Your task to perform on an android device: turn on javascript in the chrome app Image 0: 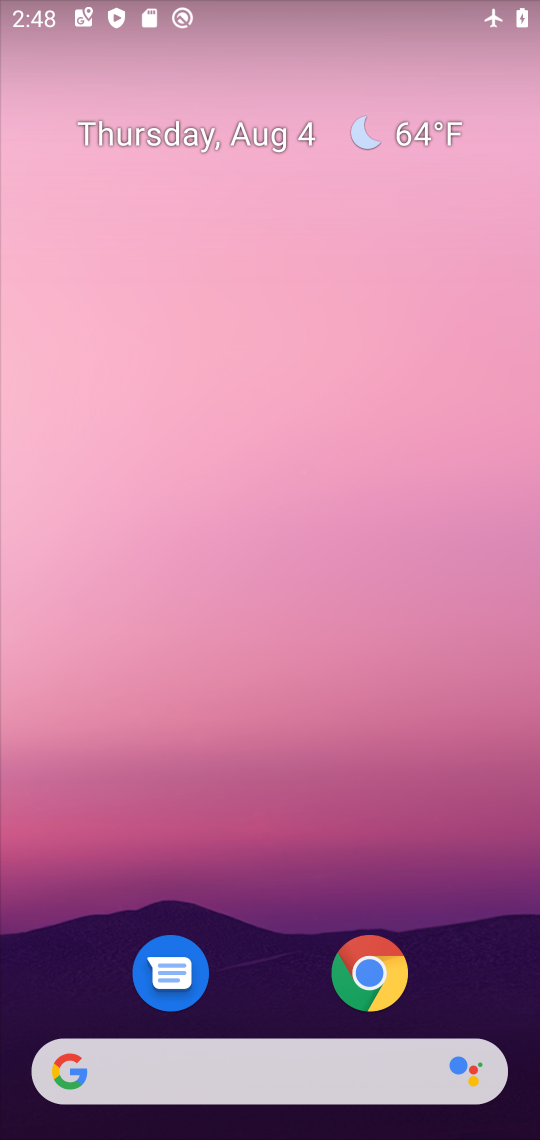
Step 0: click (371, 945)
Your task to perform on an android device: turn on javascript in the chrome app Image 1: 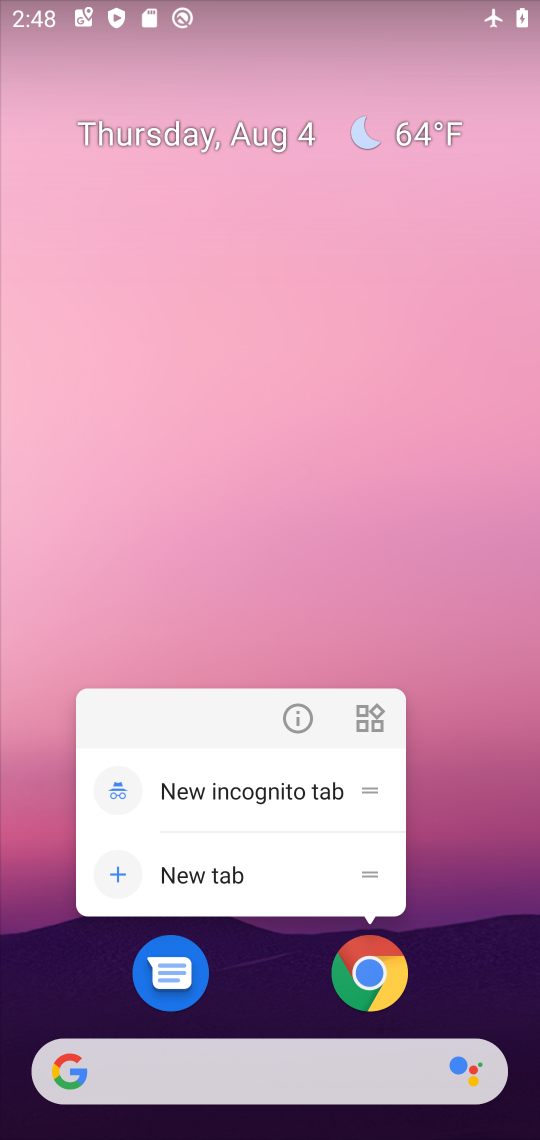
Step 1: click (368, 985)
Your task to perform on an android device: turn on javascript in the chrome app Image 2: 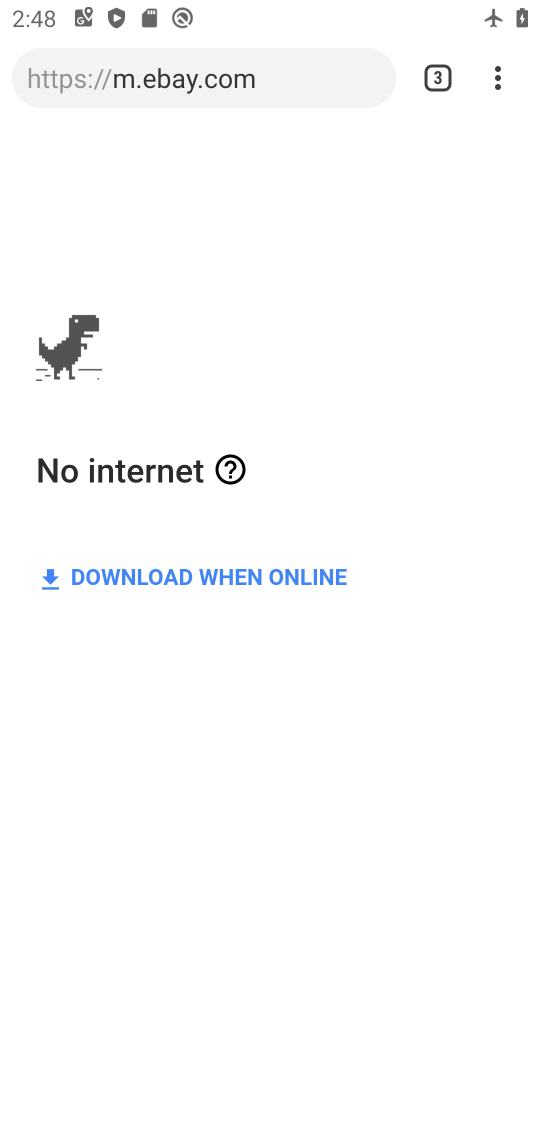
Step 2: click (532, 83)
Your task to perform on an android device: turn on javascript in the chrome app Image 3: 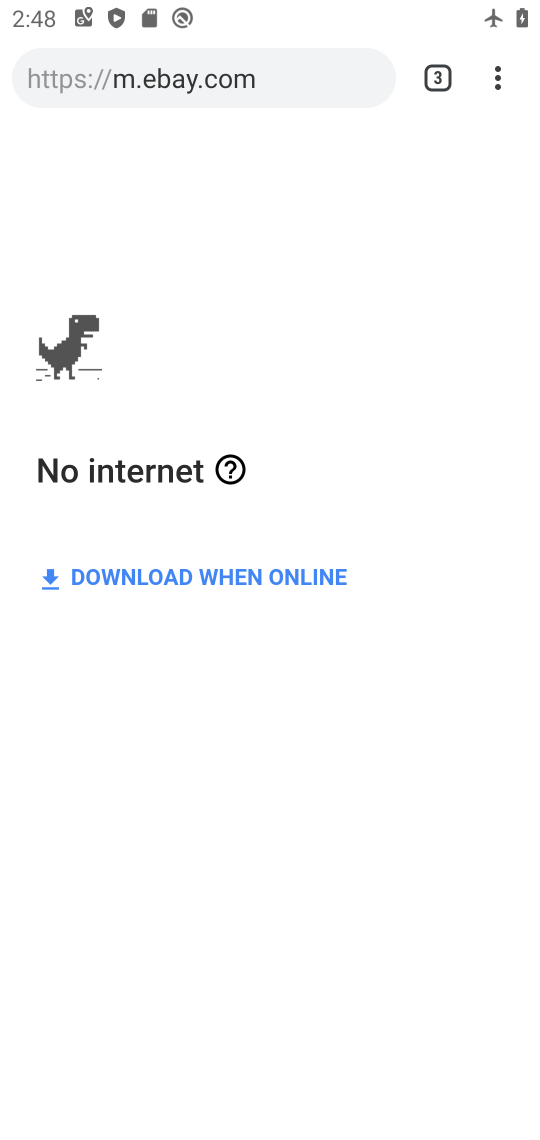
Step 3: click (507, 82)
Your task to perform on an android device: turn on javascript in the chrome app Image 4: 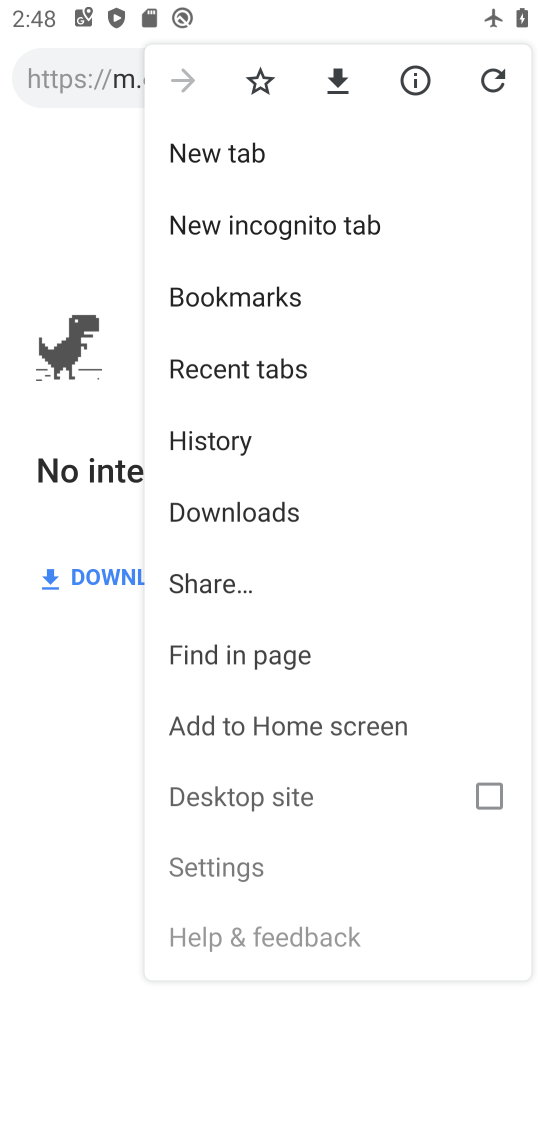
Step 4: click (505, 82)
Your task to perform on an android device: turn on javascript in the chrome app Image 5: 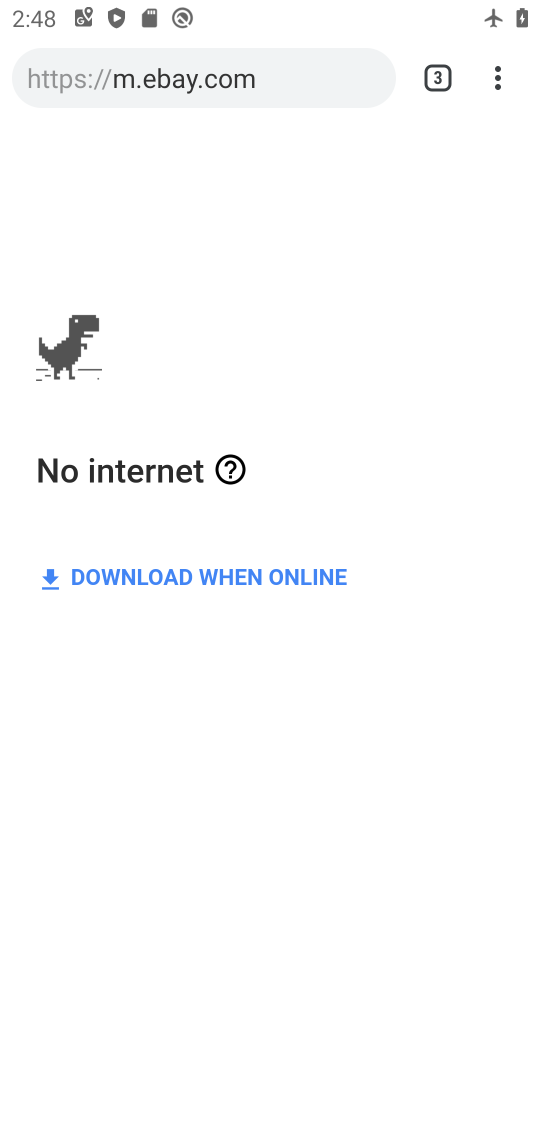
Step 5: drag from (503, 82) to (317, 874)
Your task to perform on an android device: turn on javascript in the chrome app Image 6: 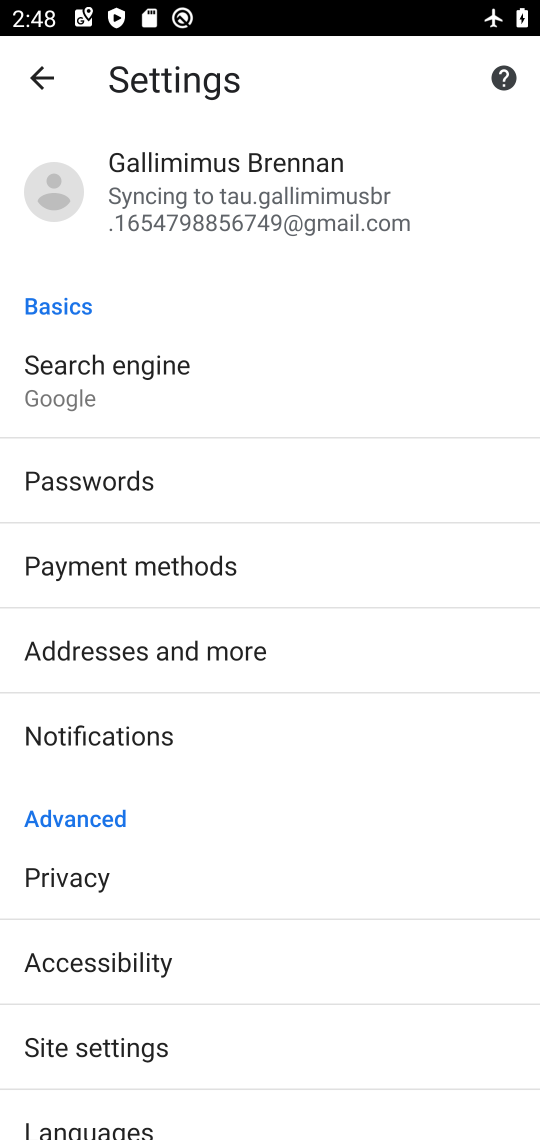
Step 6: click (89, 1033)
Your task to perform on an android device: turn on javascript in the chrome app Image 7: 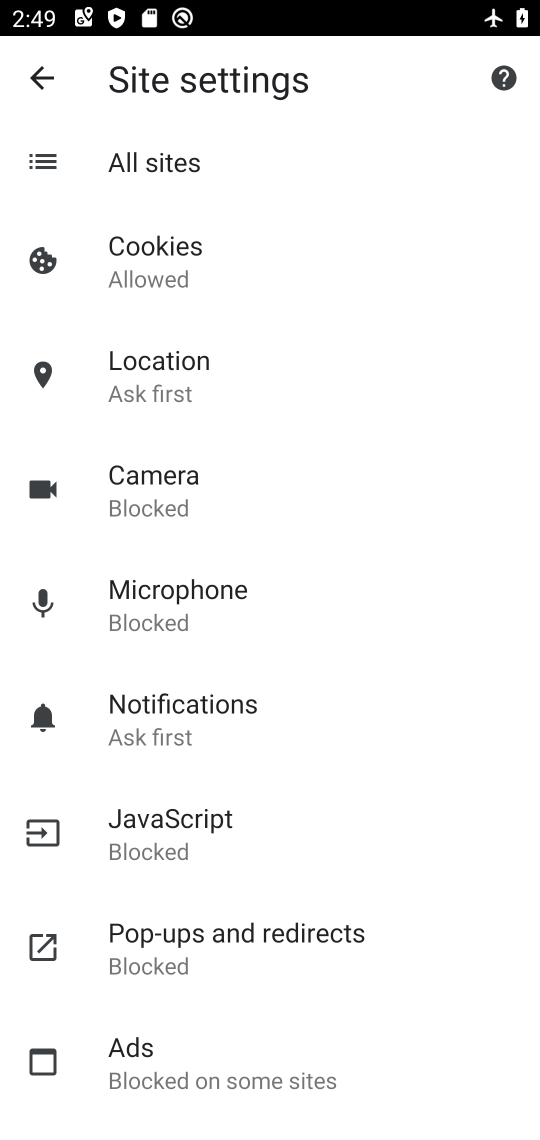
Step 7: click (97, 828)
Your task to perform on an android device: turn on javascript in the chrome app Image 8: 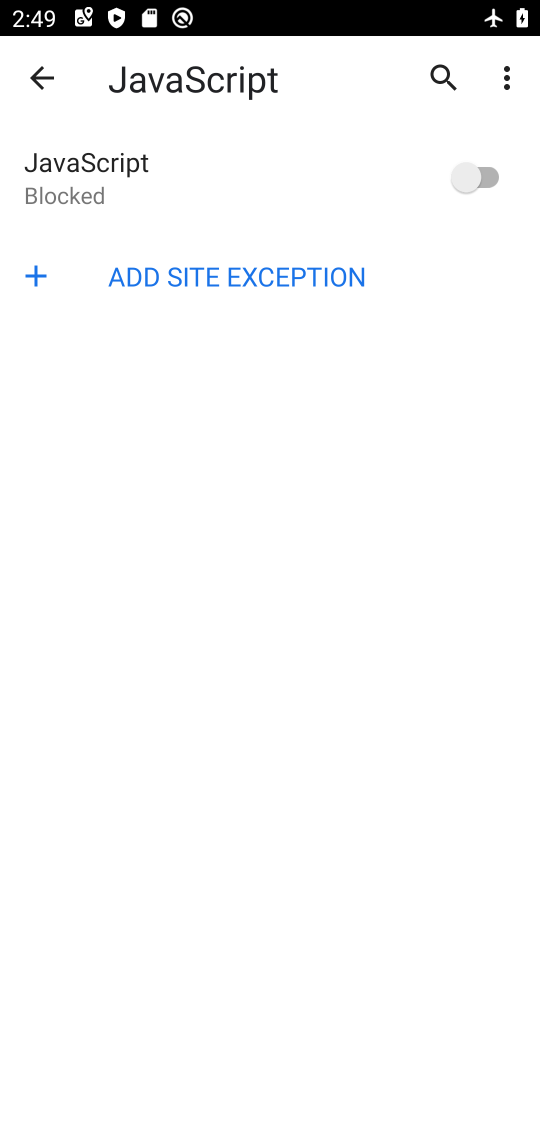
Step 8: click (452, 184)
Your task to perform on an android device: turn on javascript in the chrome app Image 9: 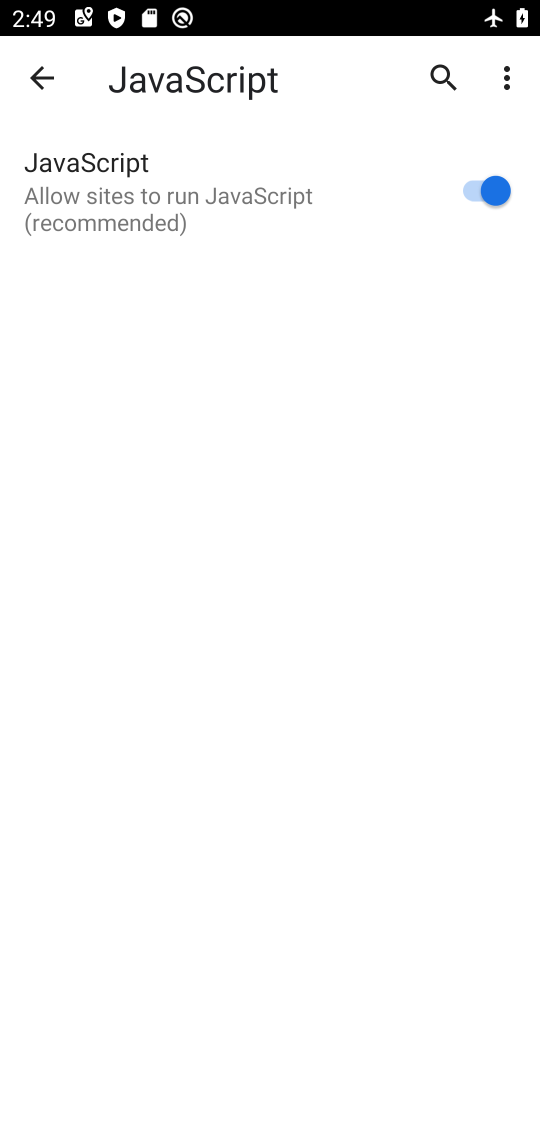
Step 9: task complete